Your task to perform on an android device: toggle javascript in the chrome app Image 0: 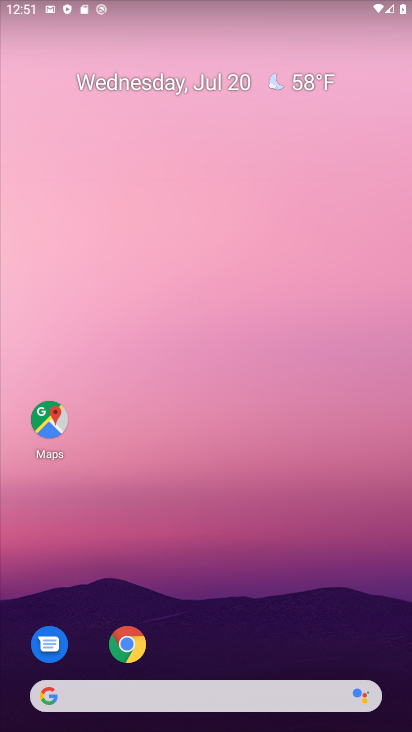
Step 0: click (124, 647)
Your task to perform on an android device: toggle javascript in the chrome app Image 1: 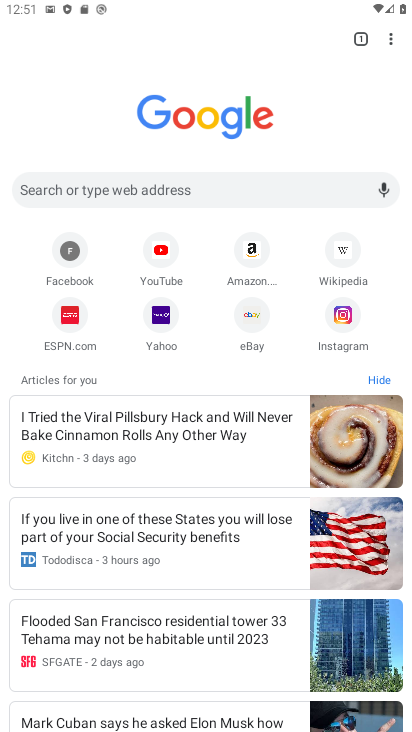
Step 1: click (389, 47)
Your task to perform on an android device: toggle javascript in the chrome app Image 2: 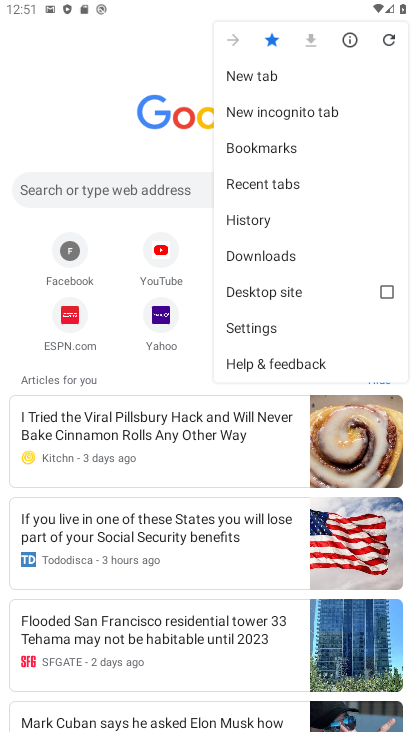
Step 2: click (252, 328)
Your task to perform on an android device: toggle javascript in the chrome app Image 3: 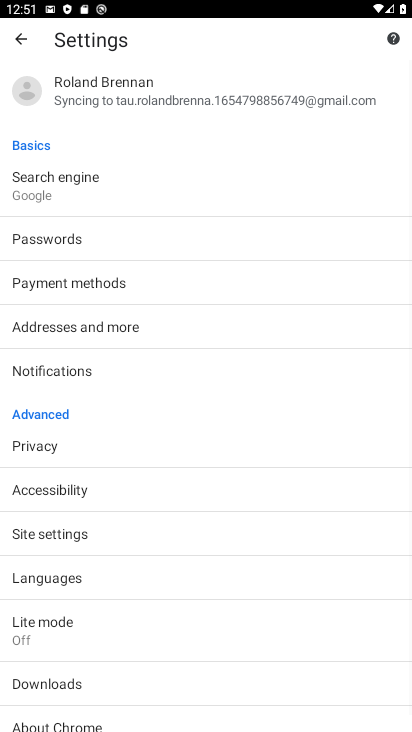
Step 3: click (92, 539)
Your task to perform on an android device: toggle javascript in the chrome app Image 4: 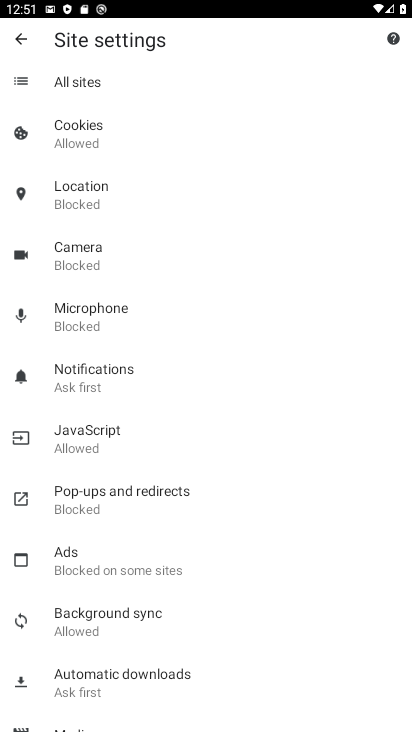
Step 4: click (96, 444)
Your task to perform on an android device: toggle javascript in the chrome app Image 5: 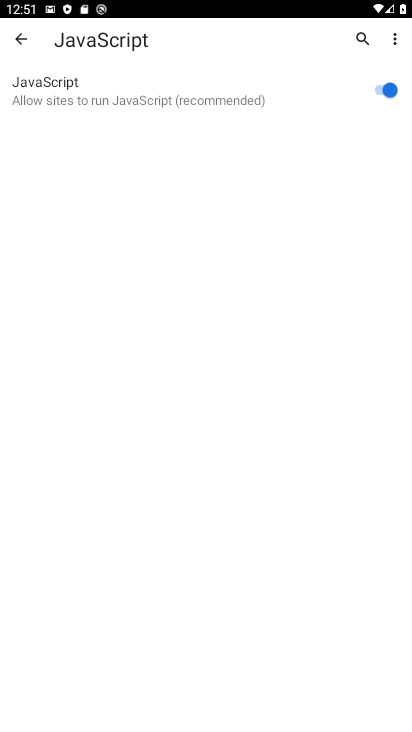
Step 5: click (391, 94)
Your task to perform on an android device: toggle javascript in the chrome app Image 6: 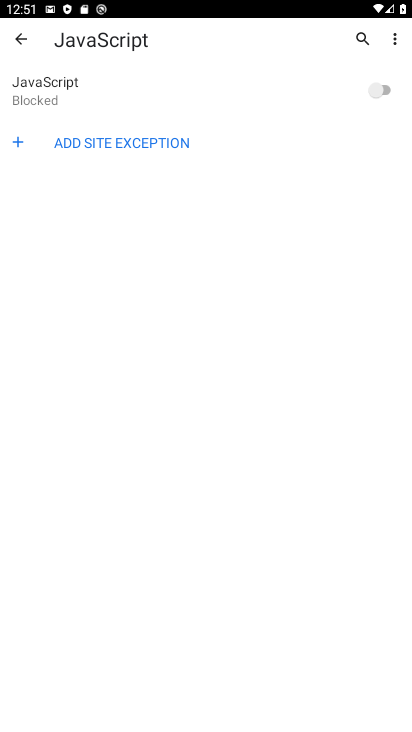
Step 6: task complete